Your task to perform on an android device: see sites visited before in the chrome app Image 0: 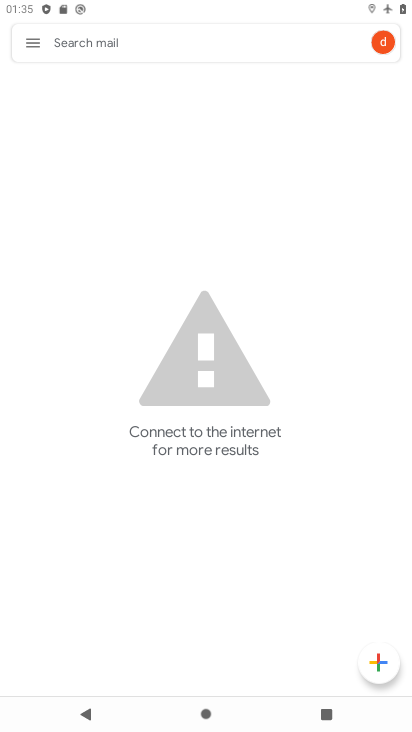
Step 0: press home button
Your task to perform on an android device: see sites visited before in the chrome app Image 1: 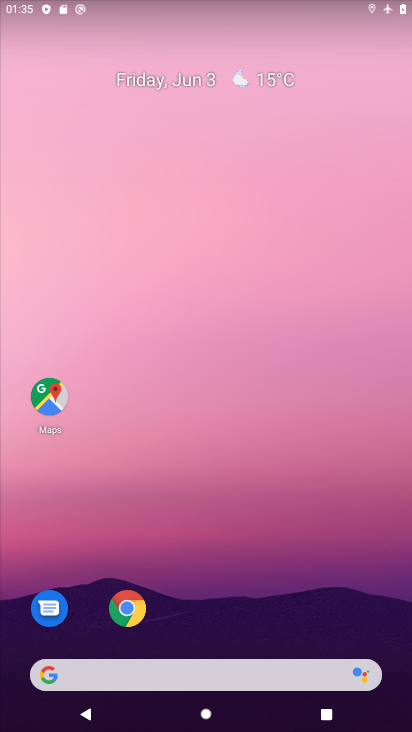
Step 1: click (122, 617)
Your task to perform on an android device: see sites visited before in the chrome app Image 2: 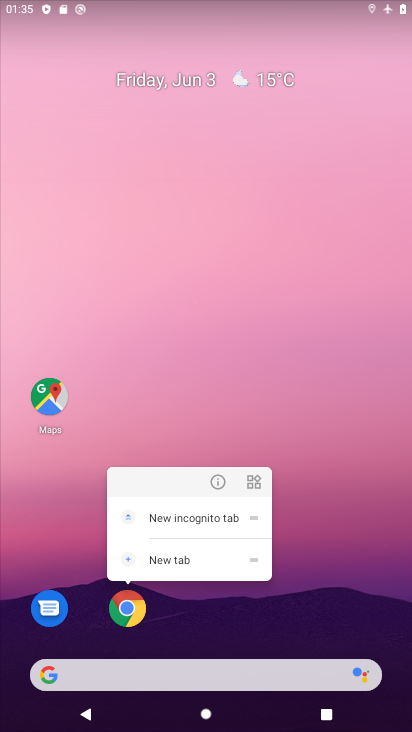
Step 2: click (123, 614)
Your task to perform on an android device: see sites visited before in the chrome app Image 3: 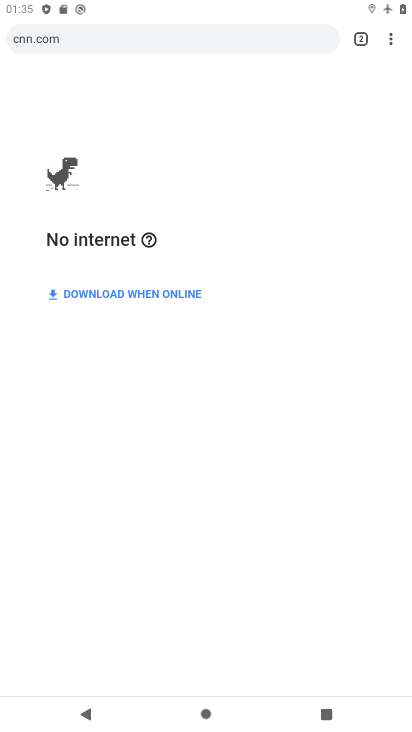
Step 3: task complete